Your task to perform on an android device: turn off picture-in-picture Image 0: 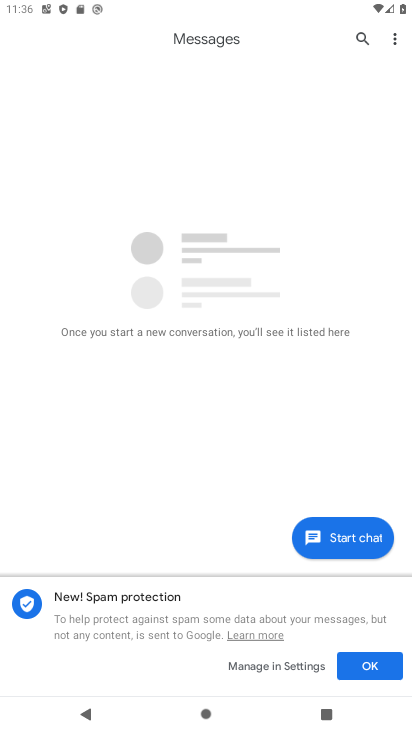
Step 0: press home button
Your task to perform on an android device: turn off picture-in-picture Image 1: 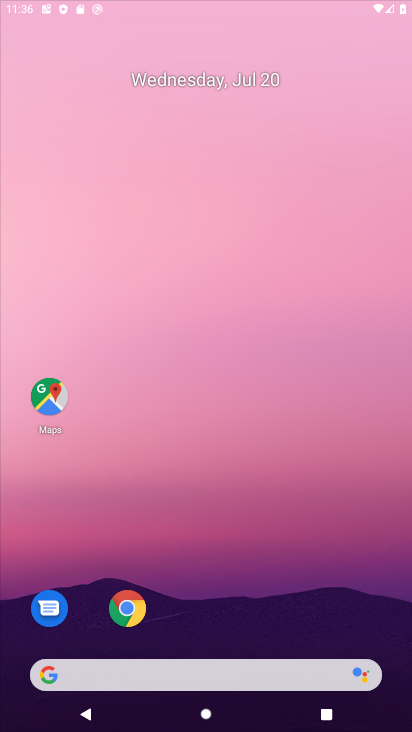
Step 1: drag from (395, 682) to (140, 95)
Your task to perform on an android device: turn off picture-in-picture Image 2: 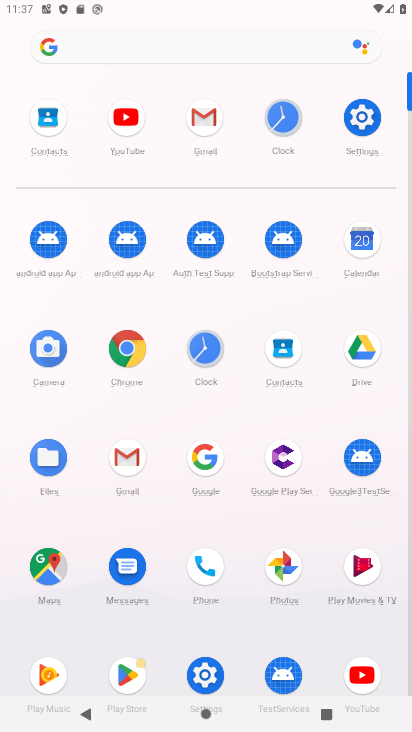
Step 2: click (133, 338)
Your task to perform on an android device: turn off picture-in-picture Image 3: 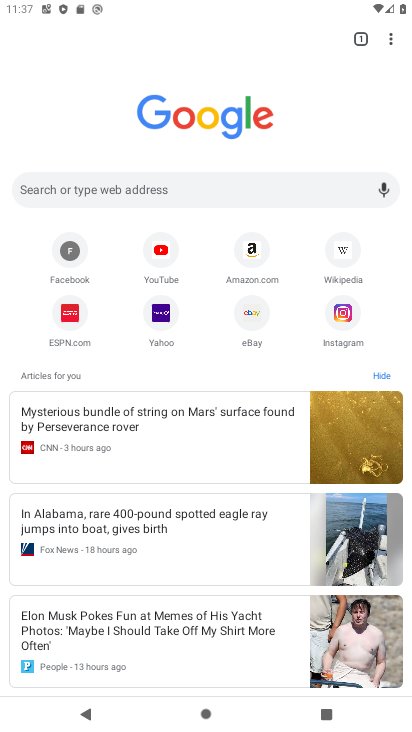
Step 3: task complete